Your task to perform on an android device: check android version Image 0: 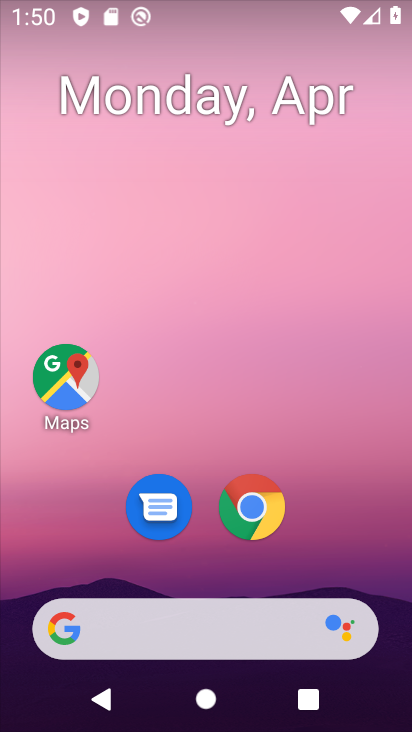
Step 0: drag from (393, 622) to (339, 74)
Your task to perform on an android device: check android version Image 1: 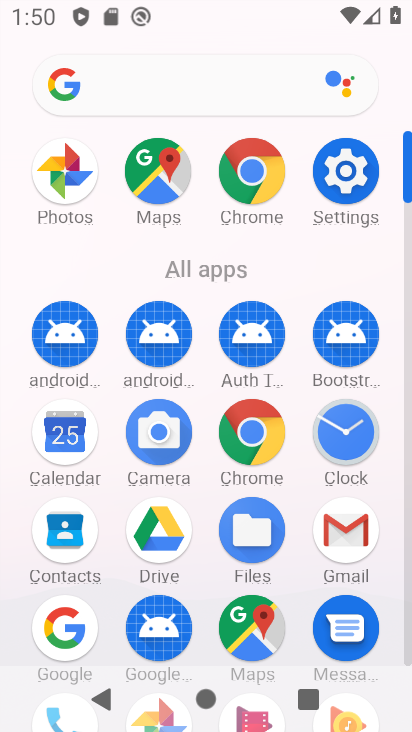
Step 1: click (405, 651)
Your task to perform on an android device: check android version Image 2: 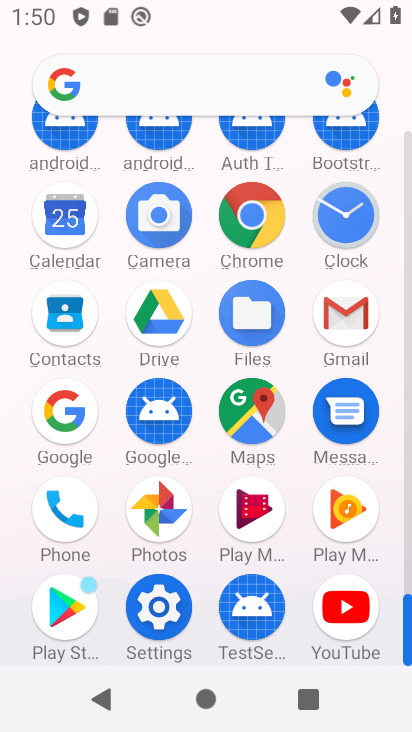
Step 2: click (157, 606)
Your task to perform on an android device: check android version Image 3: 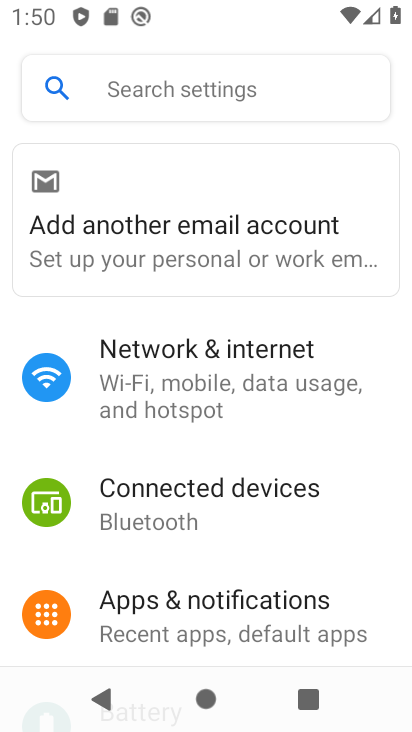
Step 3: drag from (360, 618) to (321, 137)
Your task to perform on an android device: check android version Image 4: 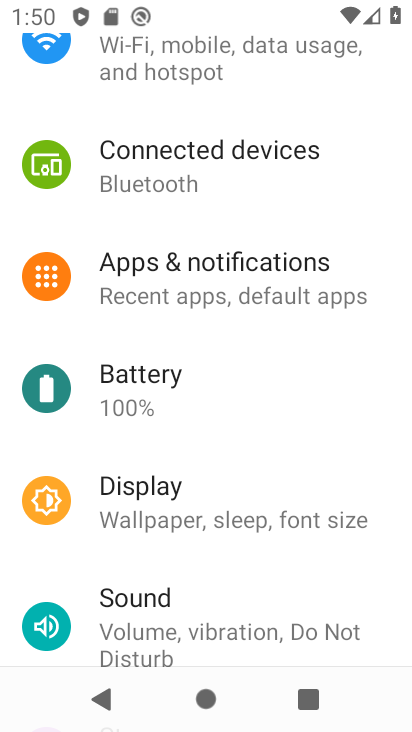
Step 4: drag from (343, 597) to (353, 197)
Your task to perform on an android device: check android version Image 5: 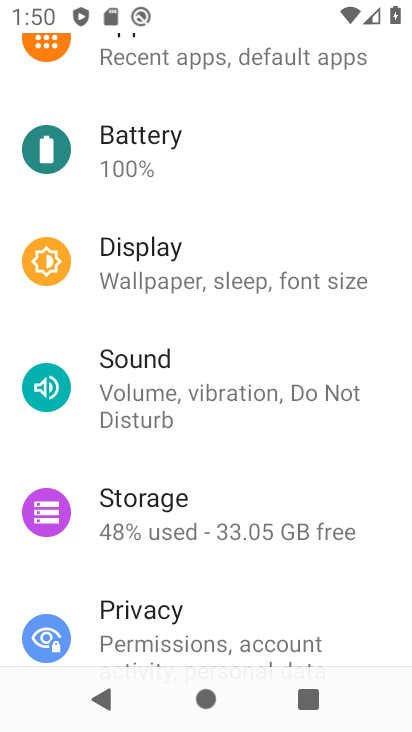
Step 5: drag from (345, 614) to (361, 182)
Your task to perform on an android device: check android version Image 6: 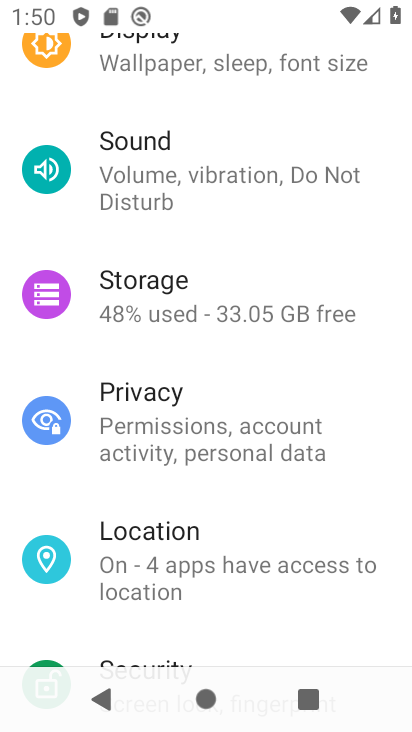
Step 6: drag from (367, 599) to (389, 123)
Your task to perform on an android device: check android version Image 7: 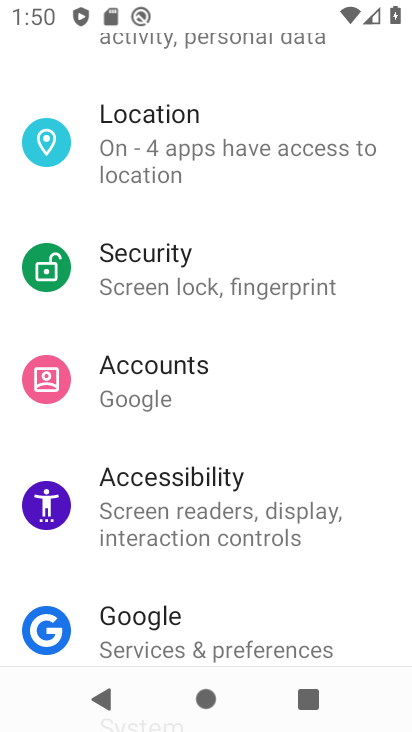
Step 7: drag from (352, 619) to (353, 142)
Your task to perform on an android device: check android version Image 8: 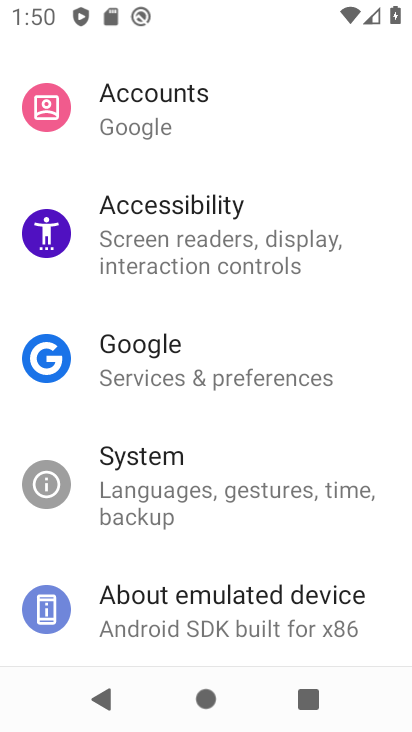
Step 8: drag from (362, 610) to (371, 84)
Your task to perform on an android device: check android version Image 9: 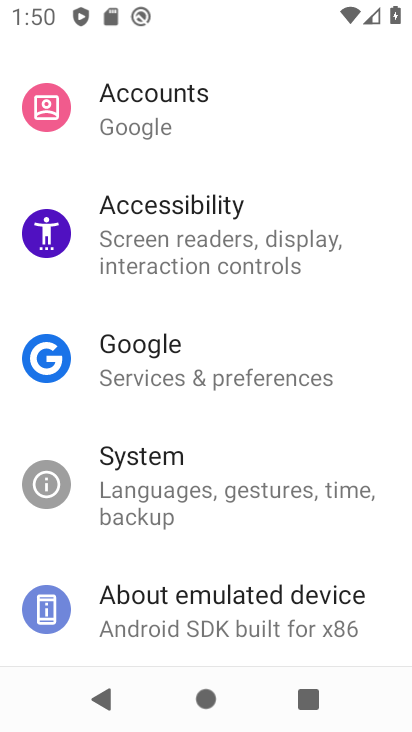
Step 9: click (149, 609)
Your task to perform on an android device: check android version Image 10: 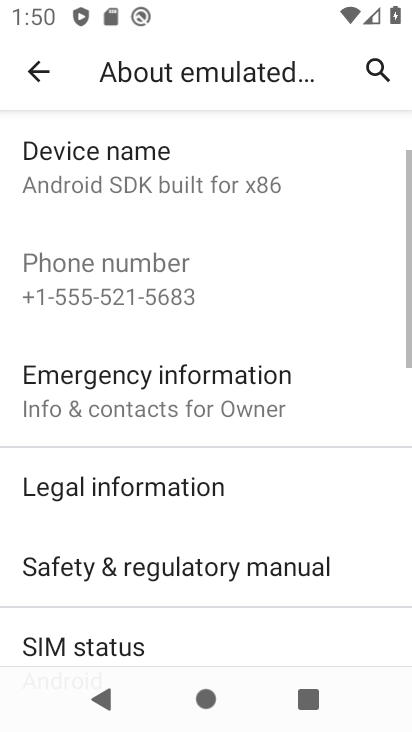
Step 10: drag from (339, 606) to (333, 142)
Your task to perform on an android device: check android version Image 11: 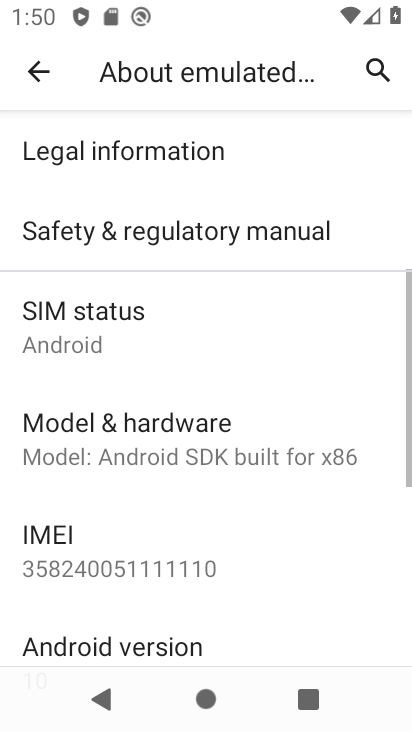
Step 11: drag from (341, 619) to (368, 177)
Your task to perform on an android device: check android version Image 12: 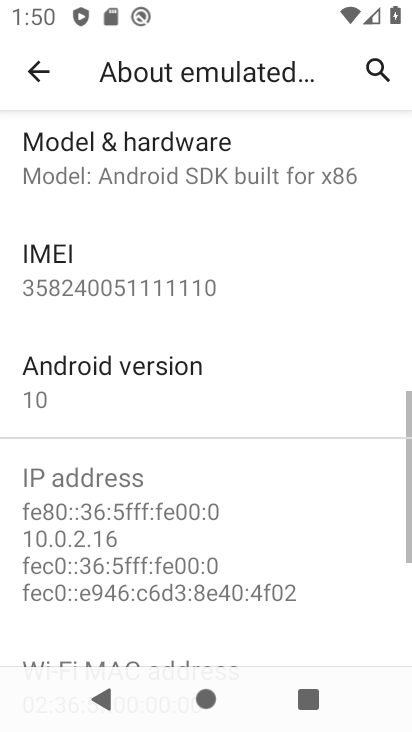
Step 12: click (45, 387)
Your task to perform on an android device: check android version Image 13: 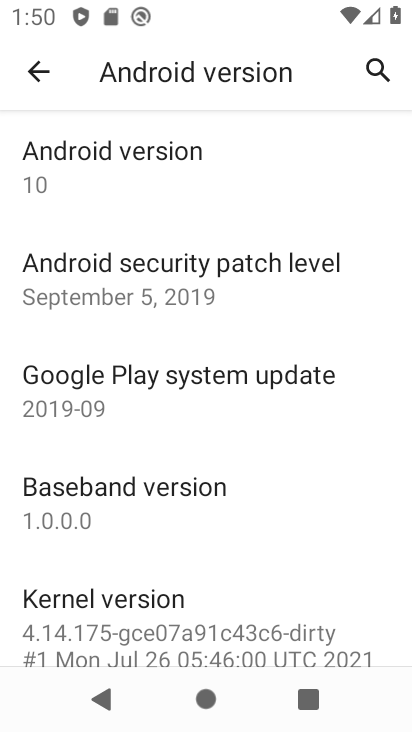
Step 13: task complete